Your task to perform on an android device: star an email in the gmail app Image 0: 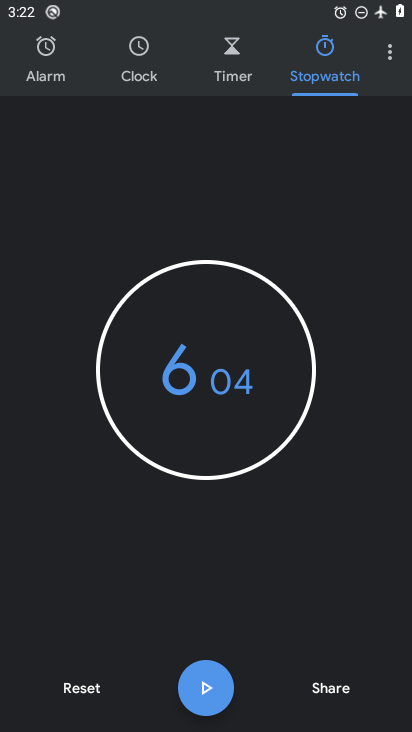
Step 0: press home button
Your task to perform on an android device: star an email in the gmail app Image 1: 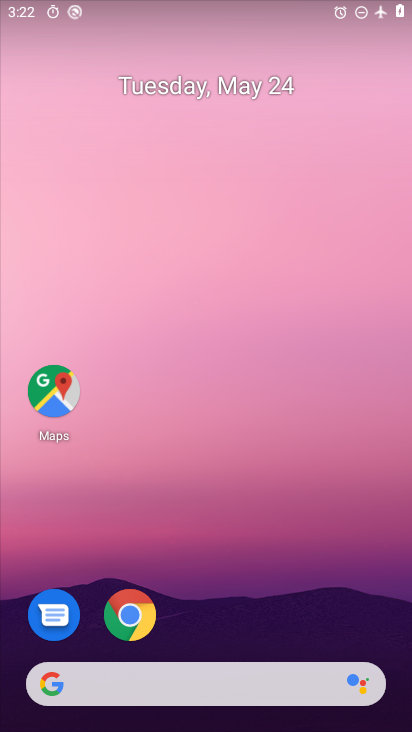
Step 1: drag from (211, 665) to (264, 303)
Your task to perform on an android device: star an email in the gmail app Image 2: 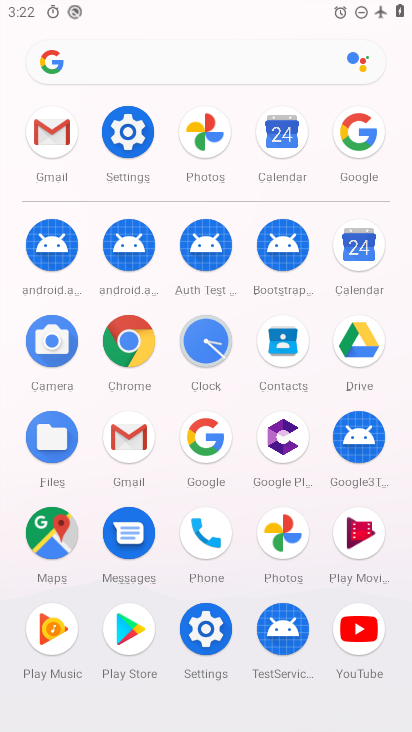
Step 2: click (124, 437)
Your task to perform on an android device: star an email in the gmail app Image 3: 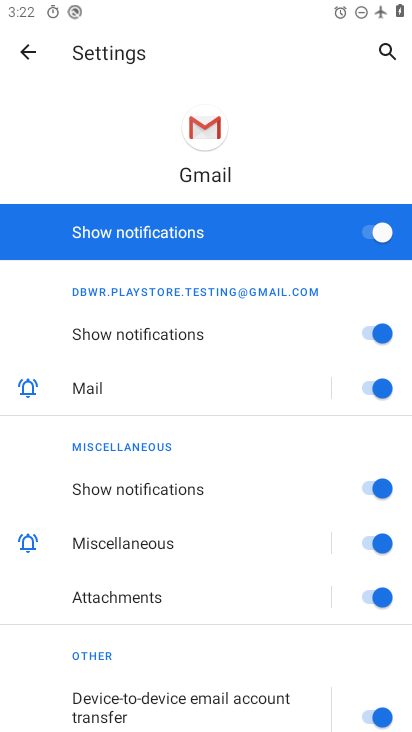
Step 3: click (23, 43)
Your task to perform on an android device: star an email in the gmail app Image 4: 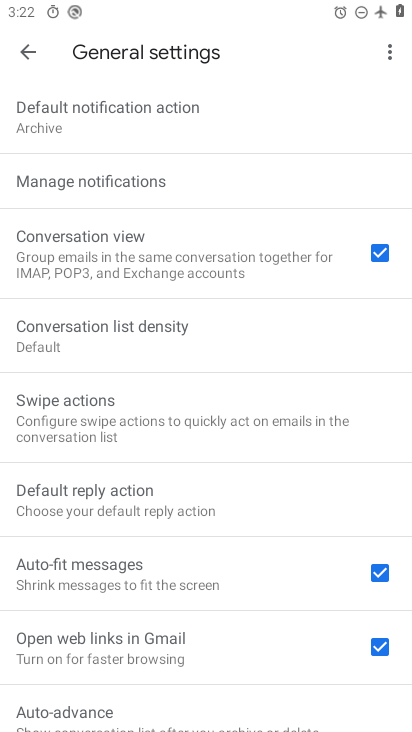
Step 4: click (23, 43)
Your task to perform on an android device: star an email in the gmail app Image 5: 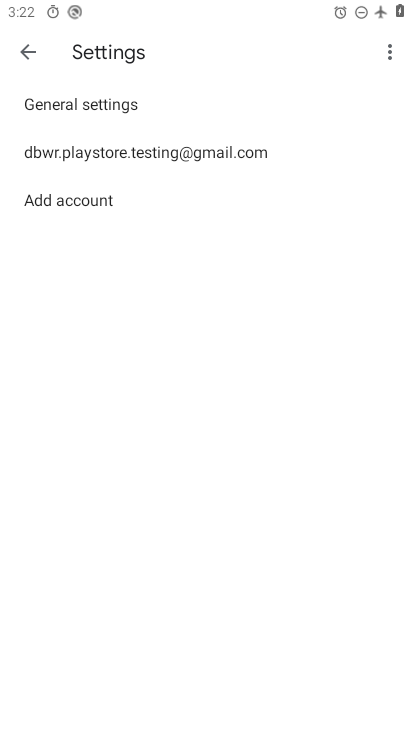
Step 5: click (23, 43)
Your task to perform on an android device: star an email in the gmail app Image 6: 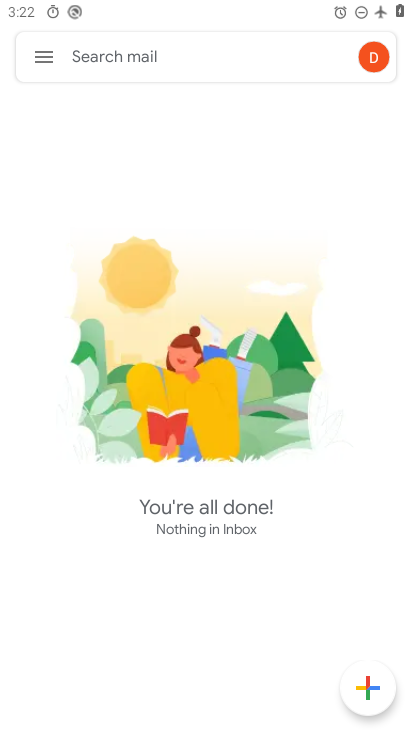
Step 6: click (47, 54)
Your task to perform on an android device: star an email in the gmail app Image 7: 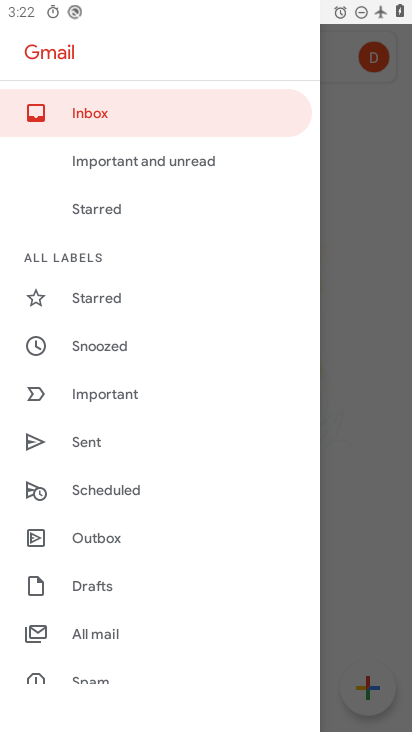
Step 7: click (123, 283)
Your task to perform on an android device: star an email in the gmail app Image 8: 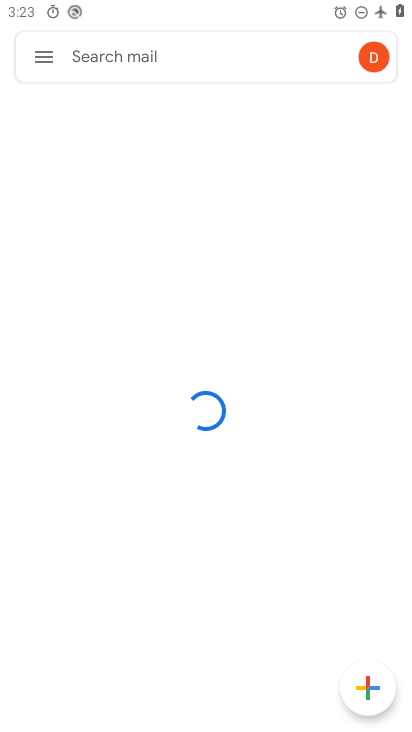
Step 8: task complete